Your task to perform on an android device: see sites visited before in the chrome app Image 0: 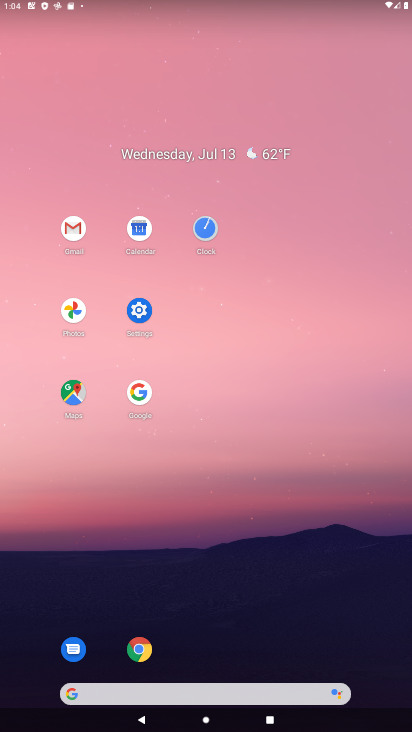
Step 0: click (146, 646)
Your task to perform on an android device: see sites visited before in the chrome app Image 1: 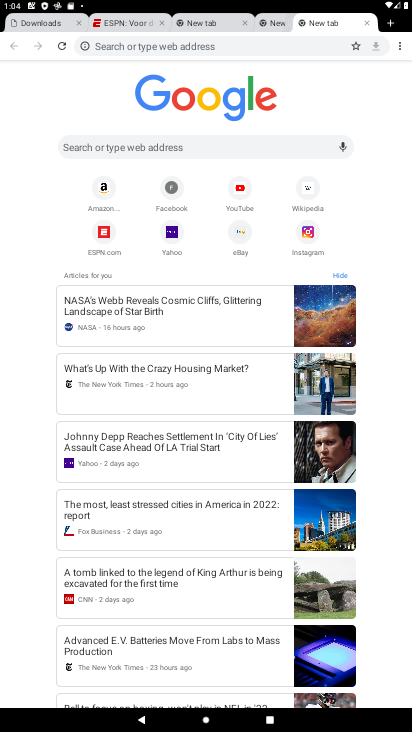
Step 1: click (399, 45)
Your task to perform on an android device: see sites visited before in the chrome app Image 2: 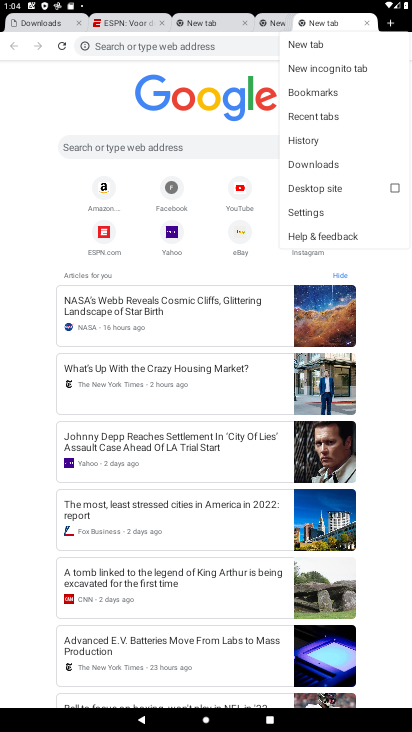
Step 2: click (318, 119)
Your task to perform on an android device: see sites visited before in the chrome app Image 3: 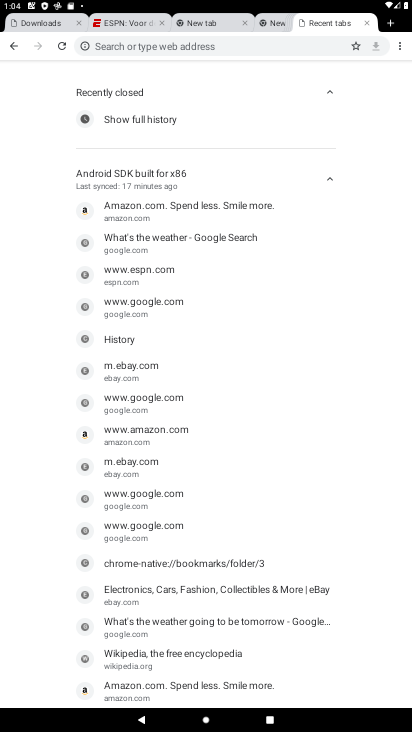
Step 3: task complete